Your task to perform on an android device: turn on bluetooth scan Image 0: 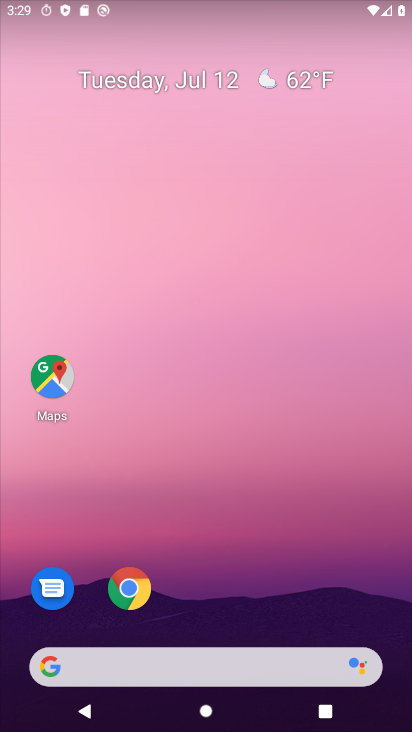
Step 0: drag from (198, 611) to (408, 376)
Your task to perform on an android device: turn on bluetooth scan Image 1: 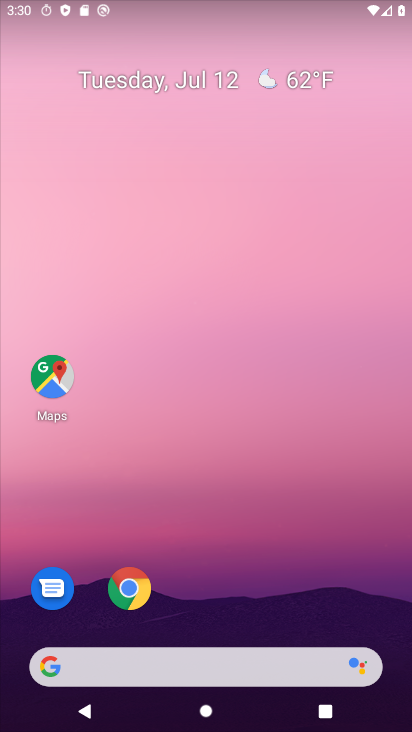
Step 1: drag from (211, 631) to (245, 8)
Your task to perform on an android device: turn on bluetooth scan Image 2: 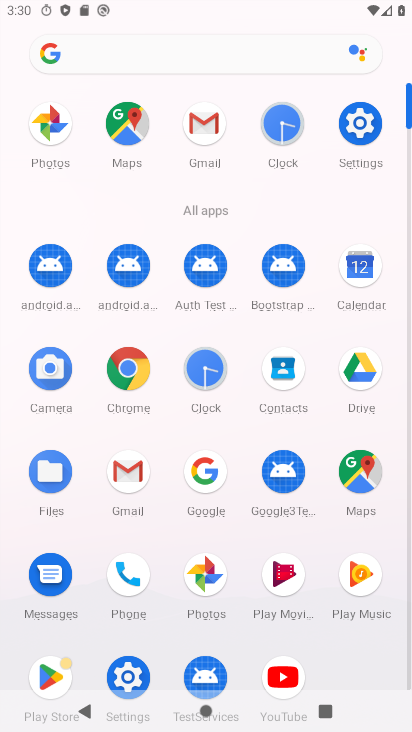
Step 2: click (368, 139)
Your task to perform on an android device: turn on bluetooth scan Image 3: 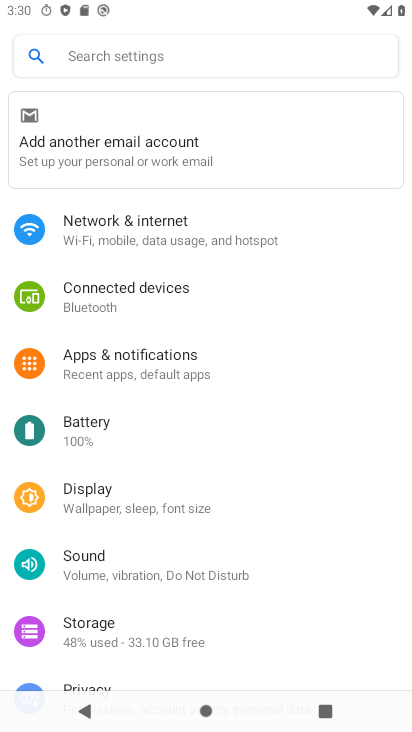
Step 3: drag from (150, 630) to (199, 294)
Your task to perform on an android device: turn on bluetooth scan Image 4: 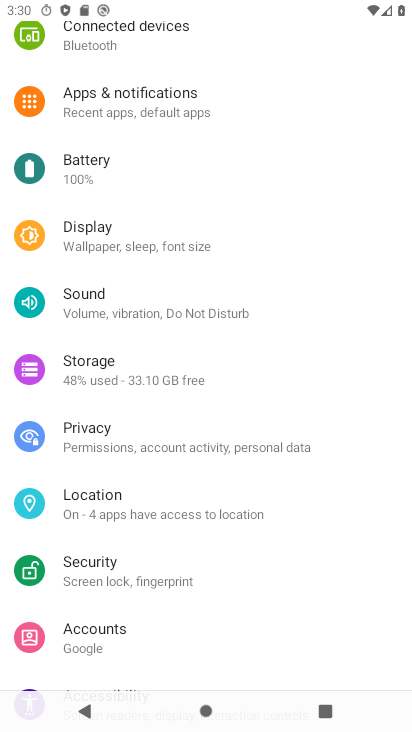
Step 4: click (110, 505)
Your task to perform on an android device: turn on bluetooth scan Image 5: 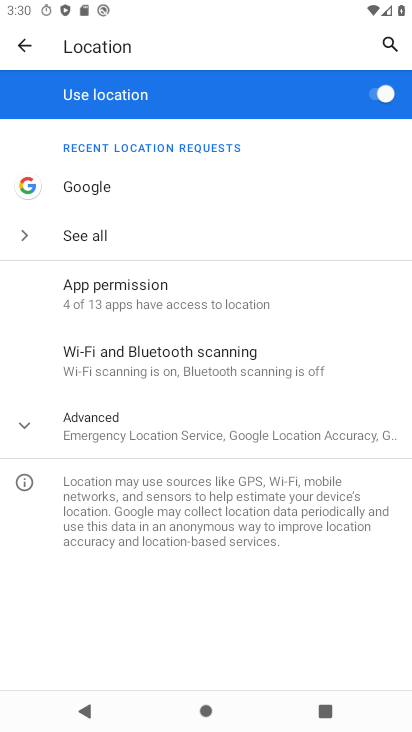
Step 5: click (161, 348)
Your task to perform on an android device: turn on bluetooth scan Image 6: 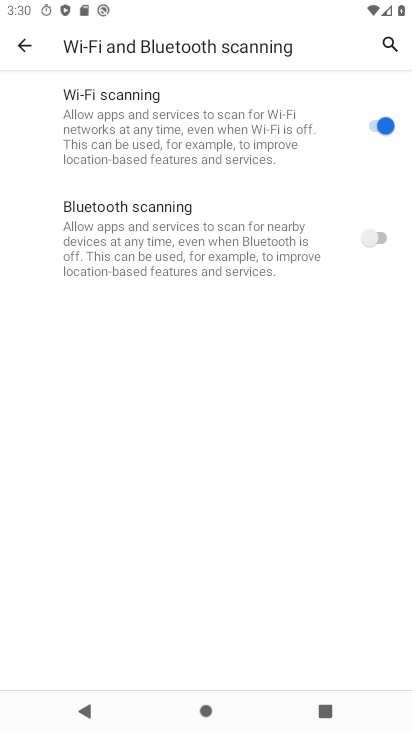
Step 6: click (380, 244)
Your task to perform on an android device: turn on bluetooth scan Image 7: 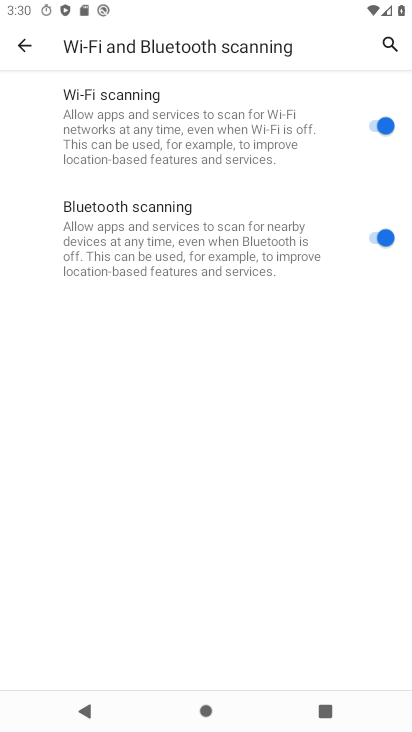
Step 7: task complete